Your task to perform on an android device: Open Google Image 0: 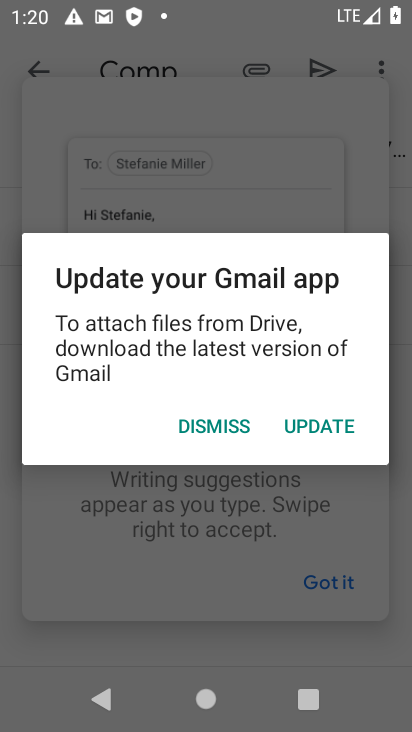
Step 0: click (305, 424)
Your task to perform on an android device: Open Google Image 1: 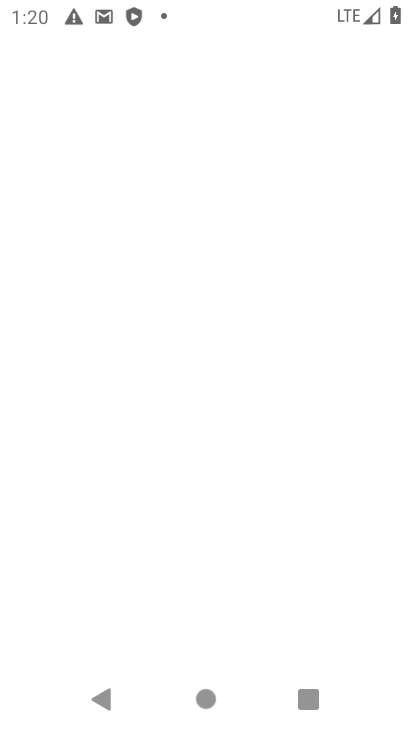
Step 1: press home button
Your task to perform on an android device: Open Google Image 2: 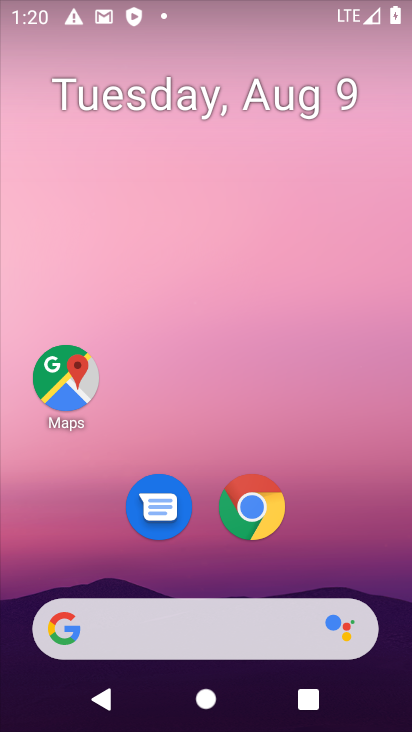
Step 2: click (206, 631)
Your task to perform on an android device: Open Google Image 3: 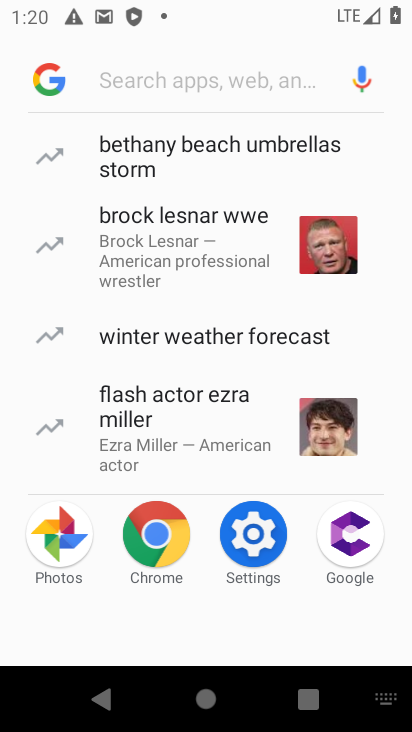
Step 3: task complete